Your task to perform on an android device: turn on the 24-hour format for clock Image 0: 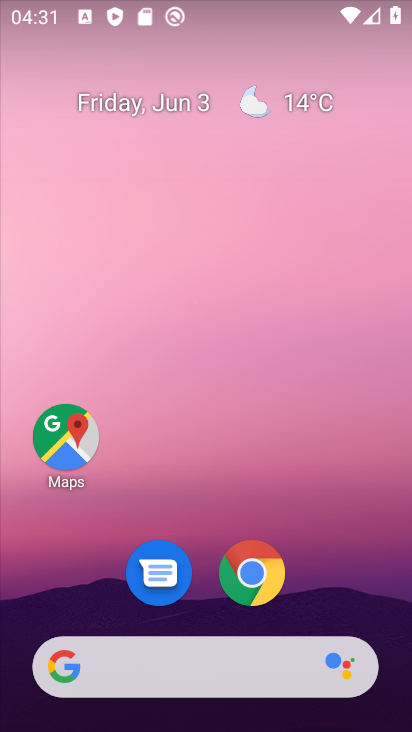
Step 0: drag from (307, 626) to (408, 72)
Your task to perform on an android device: turn on the 24-hour format for clock Image 1: 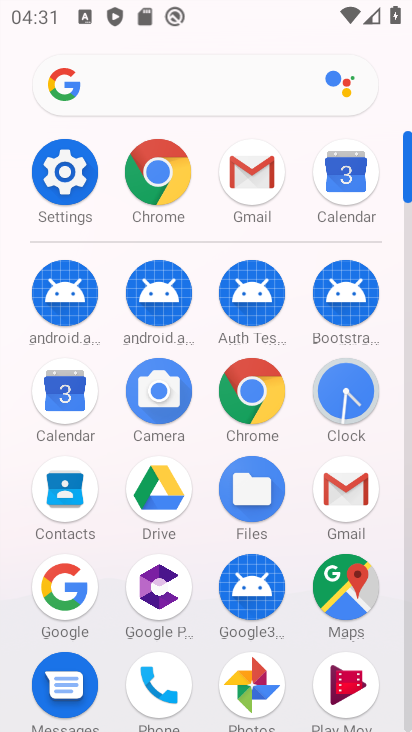
Step 1: click (328, 409)
Your task to perform on an android device: turn on the 24-hour format for clock Image 2: 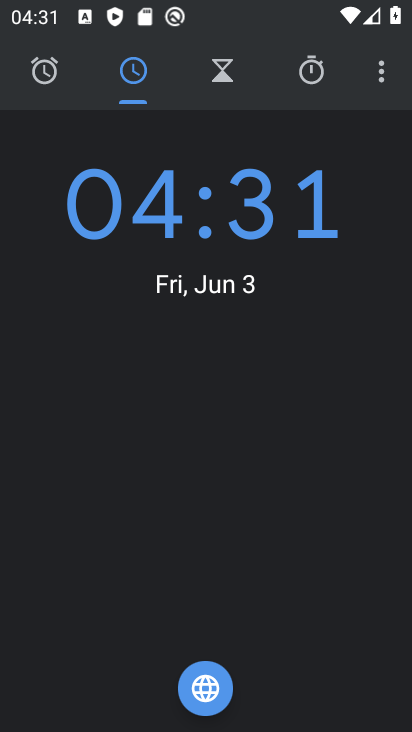
Step 2: click (390, 93)
Your task to perform on an android device: turn on the 24-hour format for clock Image 3: 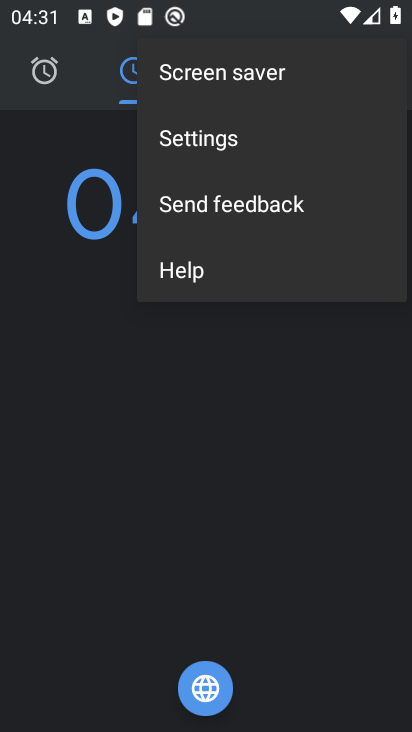
Step 3: click (233, 153)
Your task to perform on an android device: turn on the 24-hour format for clock Image 4: 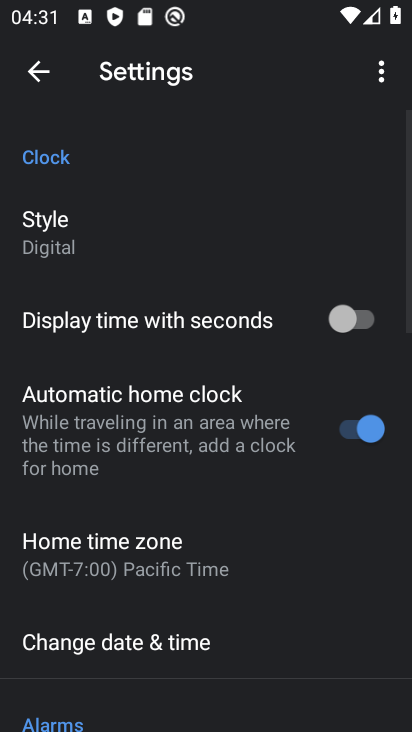
Step 4: click (222, 651)
Your task to perform on an android device: turn on the 24-hour format for clock Image 5: 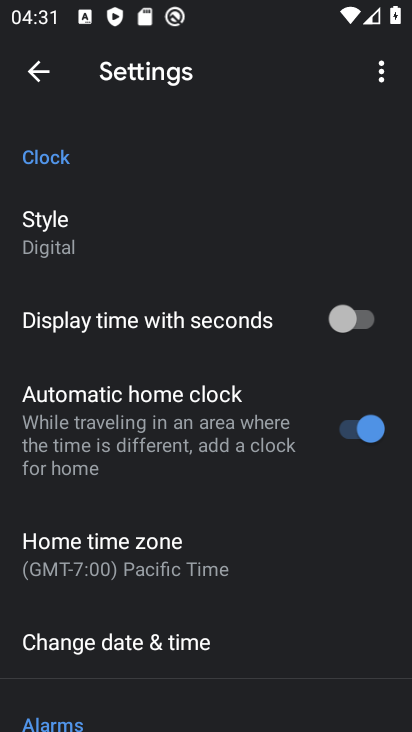
Step 5: click (222, 651)
Your task to perform on an android device: turn on the 24-hour format for clock Image 6: 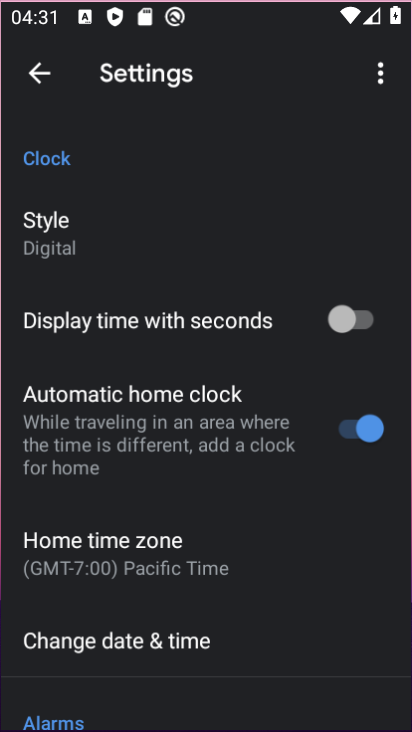
Step 6: click (147, 644)
Your task to perform on an android device: turn on the 24-hour format for clock Image 7: 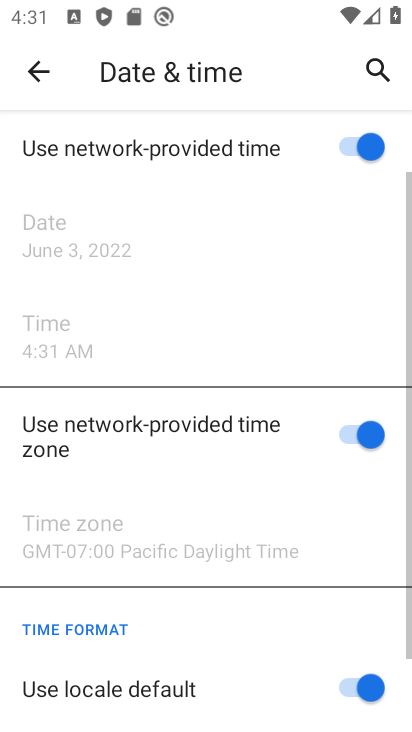
Step 7: click (350, 690)
Your task to perform on an android device: turn on the 24-hour format for clock Image 8: 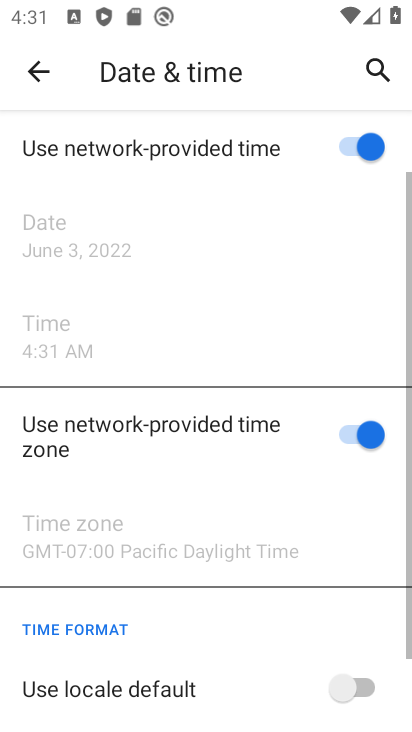
Step 8: drag from (271, 697) to (337, 192)
Your task to perform on an android device: turn on the 24-hour format for clock Image 9: 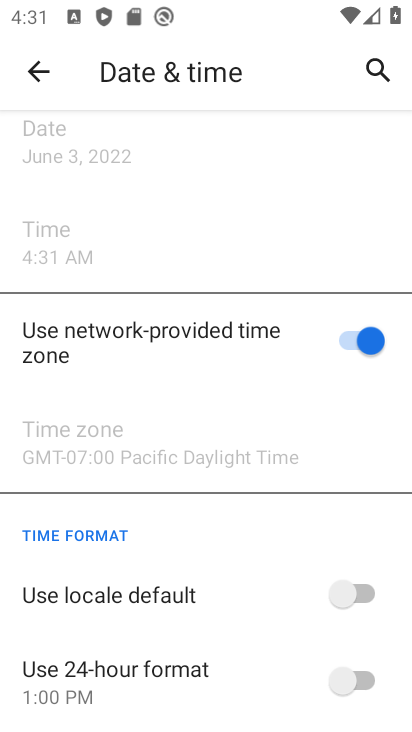
Step 9: drag from (293, 496) to (268, 263)
Your task to perform on an android device: turn on the 24-hour format for clock Image 10: 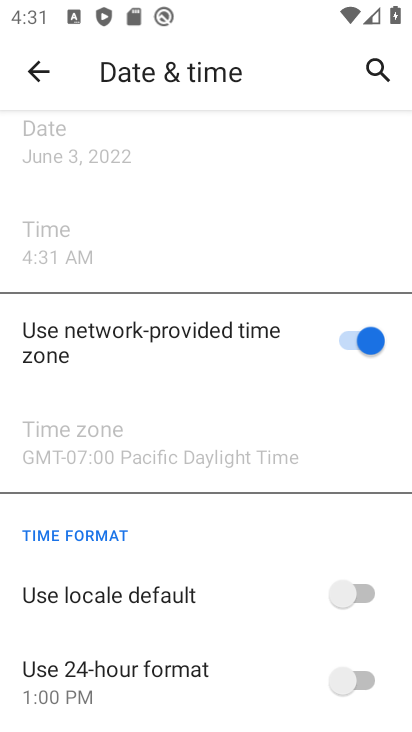
Step 10: click (357, 679)
Your task to perform on an android device: turn on the 24-hour format for clock Image 11: 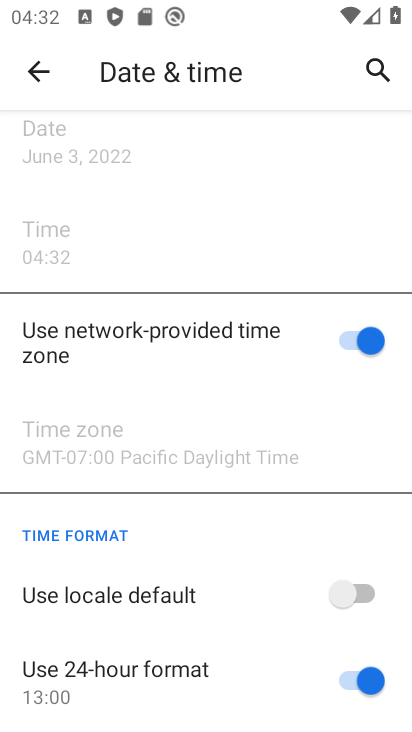
Step 11: task complete